Your task to perform on an android device: Open wifi settings Image 0: 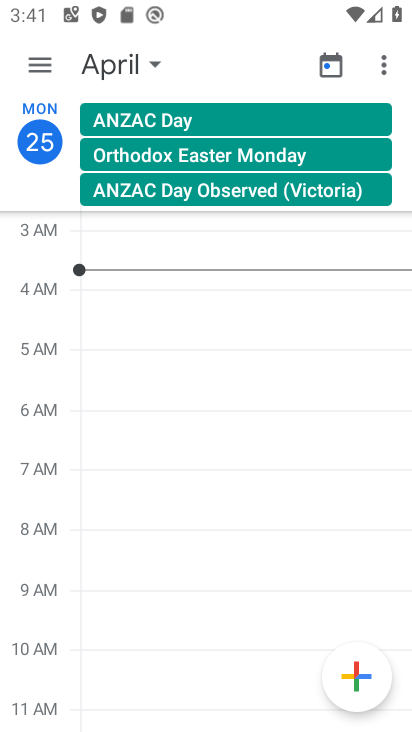
Step 0: press home button
Your task to perform on an android device: Open wifi settings Image 1: 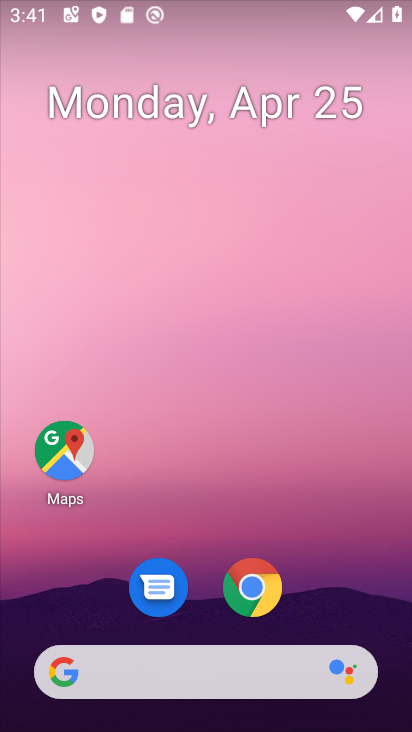
Step 1: drag from (213, 605) to (261, 178)
Your task to perform on an android device: Open wifi settings Image 2: 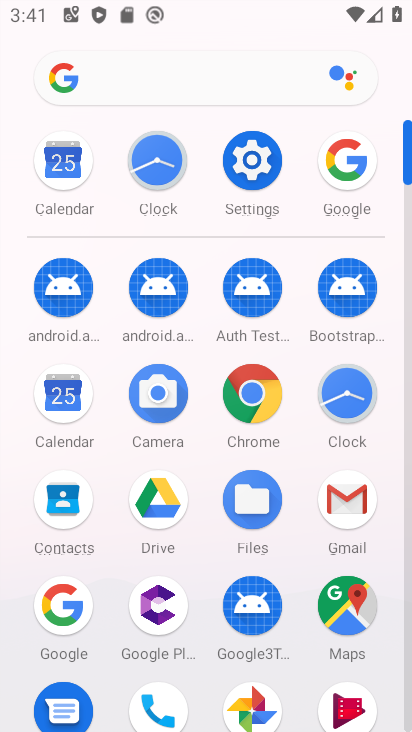
Step 2: click (248, 163)
Your task to perform on an android device: Open wifi settings Image 3: 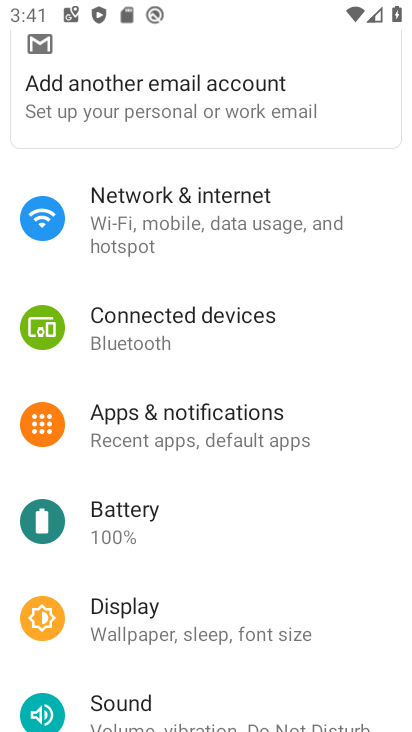
Step 3: click (232, 196)
Your task to perform on an android device: Open wifi settings Image 4: 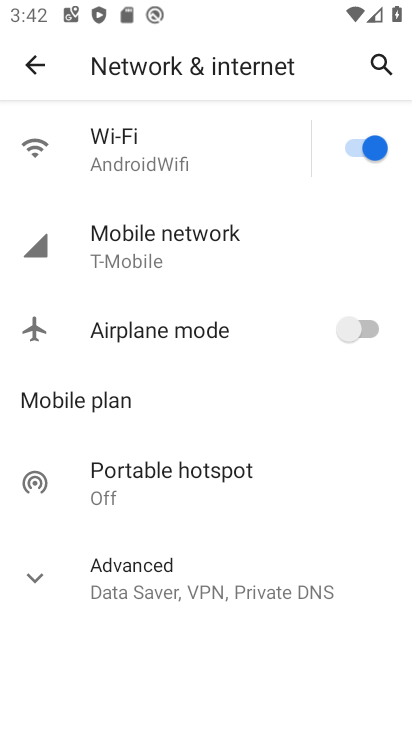
Step 4: click (147, 139)
Your task to perform on an android device: Open wifi settings Image 5: 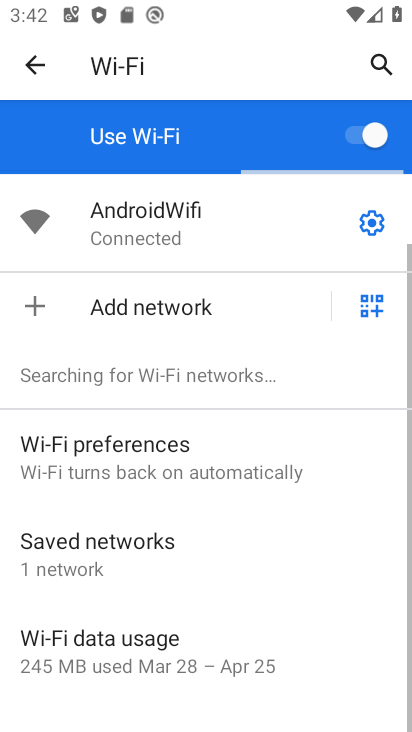
Step 5: click (246, 220)
Your task to perform on an android device: Open wifi settings Image 6: 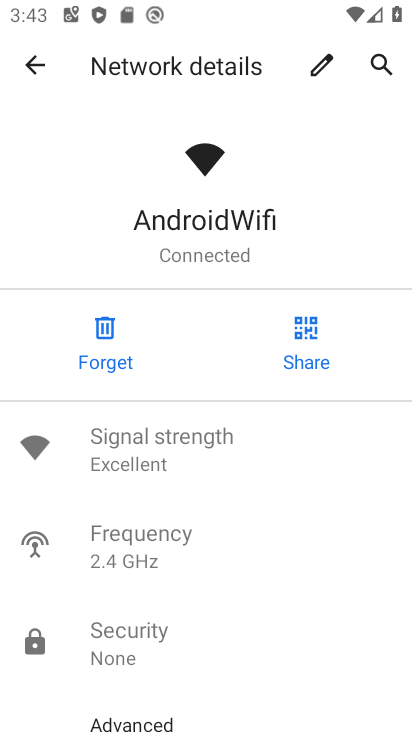
Step 6: task complete